Your task to perform on an android device: Search for sushi restaurants on Maps Image 0: 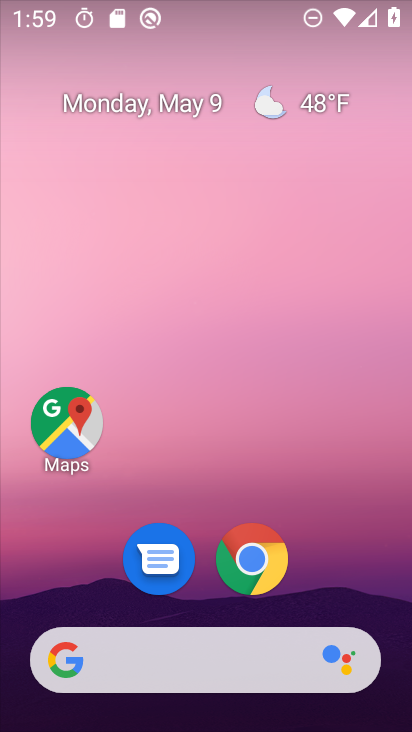
Step 0: drag from (206, 603) to (234, 327)
Your task to perform on an android device: Search for sushi restaurants on Maps Image 1: 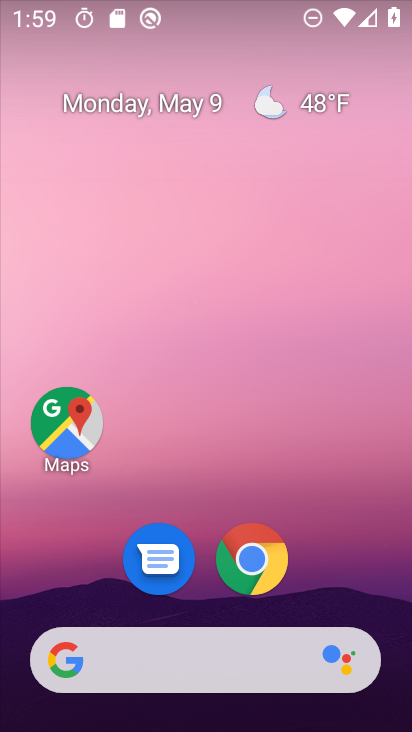
Step 1: drag from (214, 524) to (221, 2)
Your task to perform on an android device: Search for sushi restaurants on Maps Image 2: 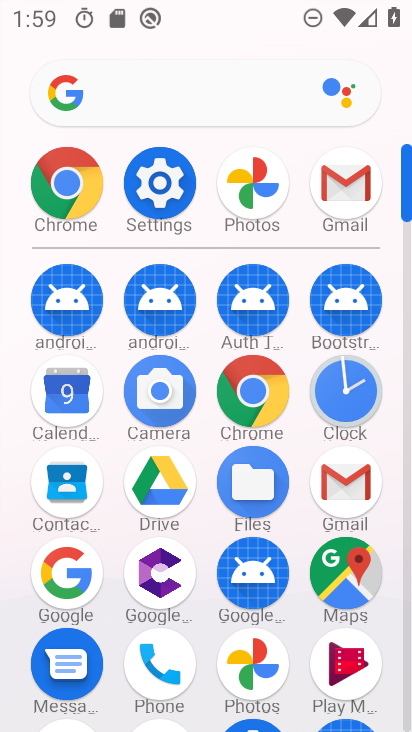
Step 2: click (343, 577)
Your task to perform on an android device: Search for sushi restaurants on Maps Image 3: 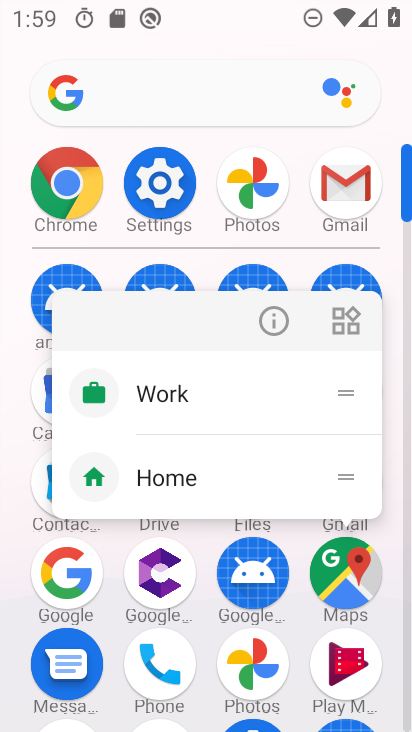
Step 3: click (274, 306)
Your task to perform on an android device: Search for sushi restaurants on Maps Image 4: 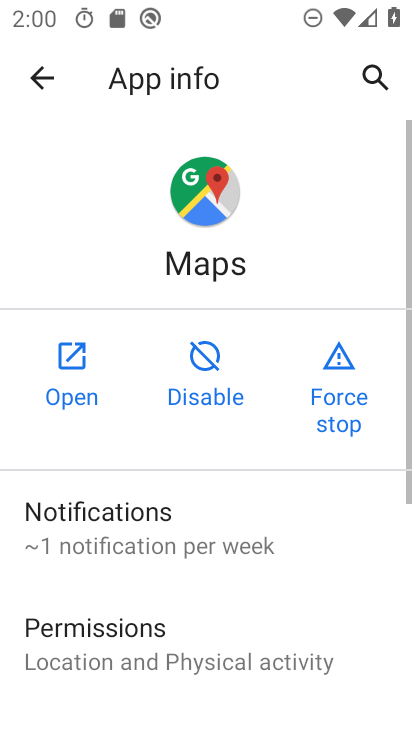
Step 4: click (75, 358)
Your task to perform on an android device: Search for sushi restaurants on Maps Image 5: 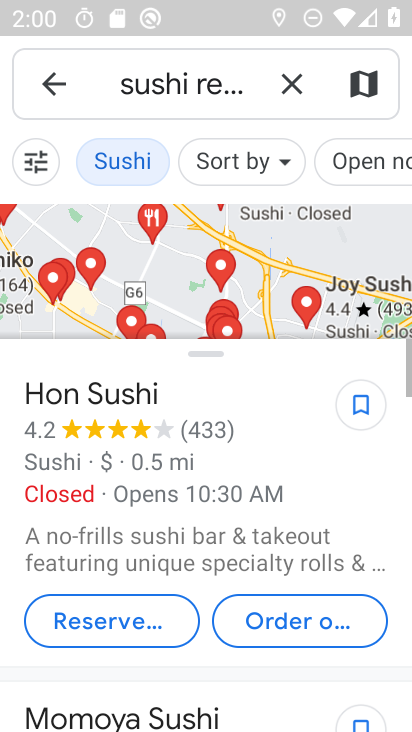
Step 5: task complete